Your task to perform on an android device: uninstall "AliExpress" Image 0: 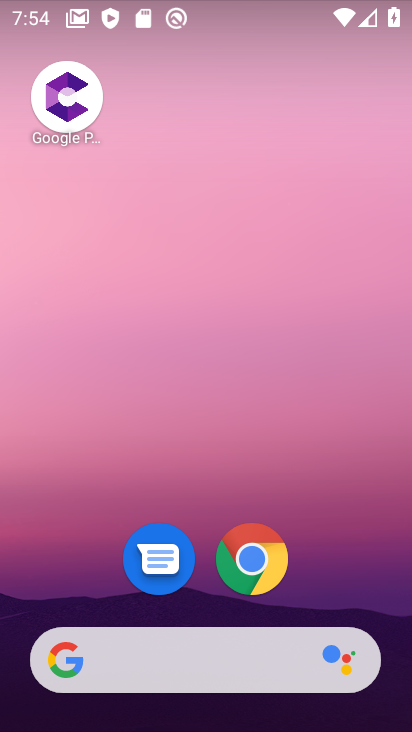
Step 0: drag from (176, 488) to (183, 89)
Your task to perform on an android device: uninstall "AliExpress" Image 1: 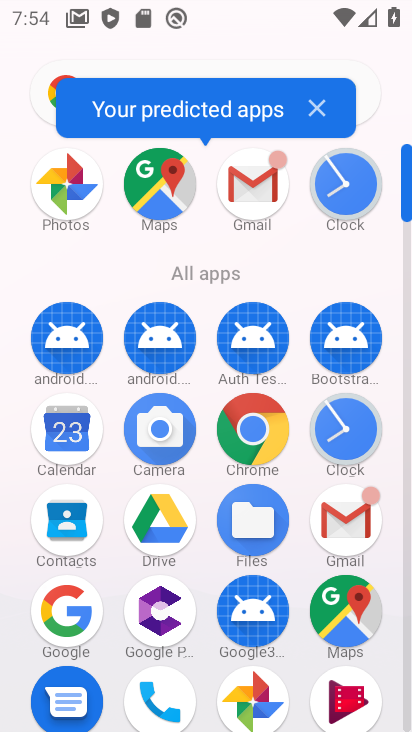
Step 1: drag from (201, 536) to (192, 191)
Your task to perform on an android device: uninstall "AliExpress" Image 2: 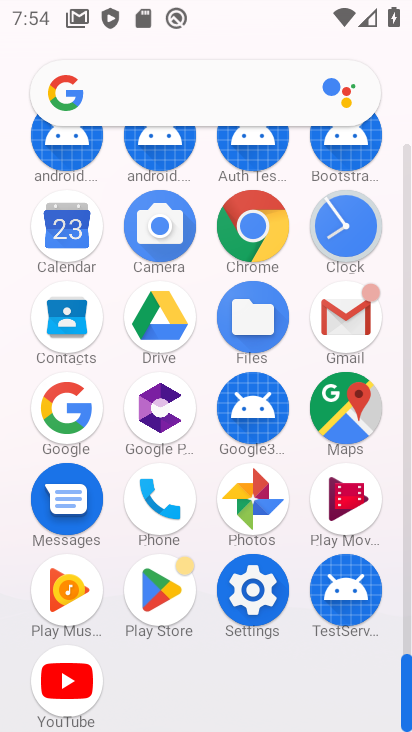
Step 2: click (165, 611)
Your task to perform on an android device: uninstall "AliExpress" Image 3: 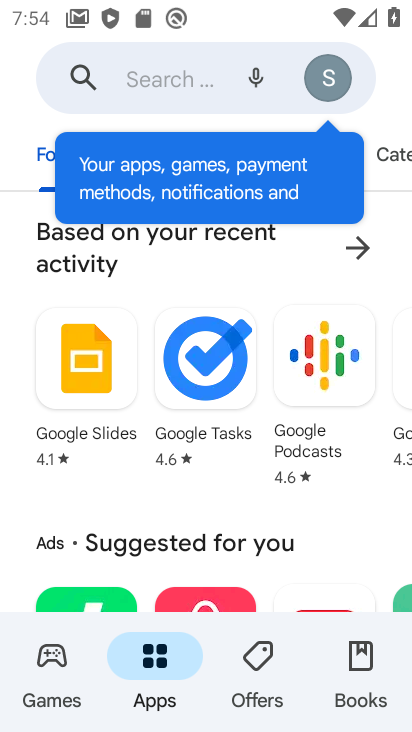
Step 3: click (227, 77)
Your task to perform on an android device: uninstall "AliExpress" Image 4: 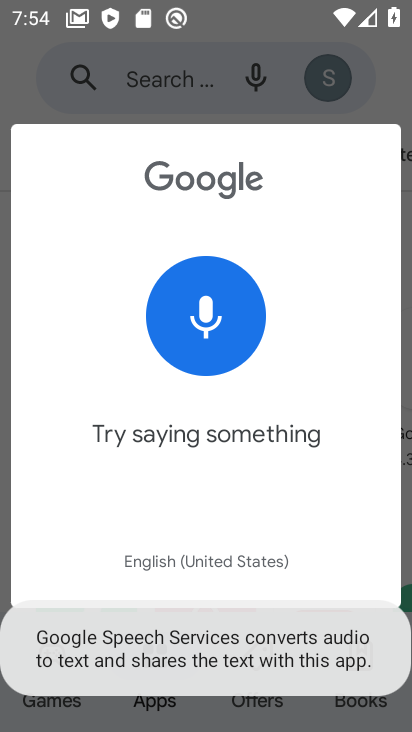
Step 4: drag from (210, 76) to (139, 76)
Your task to perform on an android device: uninstall "AliExpress" Image 5: 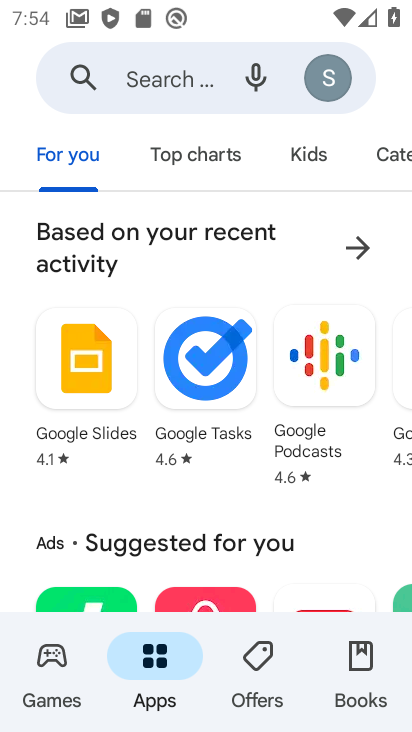
Step 5: drag from (210, 76) to (139, 76)
Your task to perform on an android device: uninstall "AliExpress" Image 6: 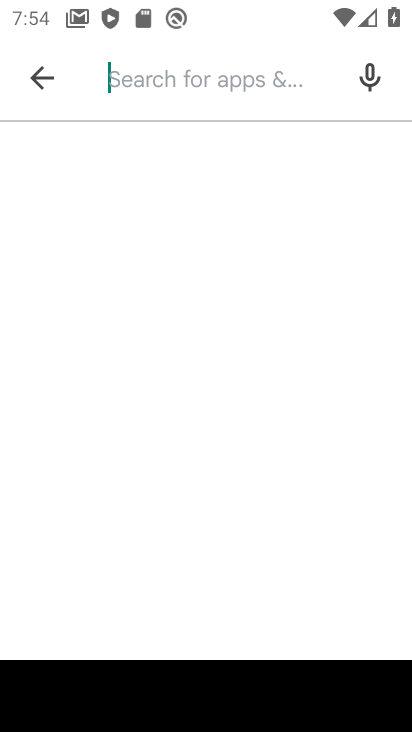
Step 6: type "AliExpress"
Your task to perform on an android device: uninstall "AliExpress" Image 7: 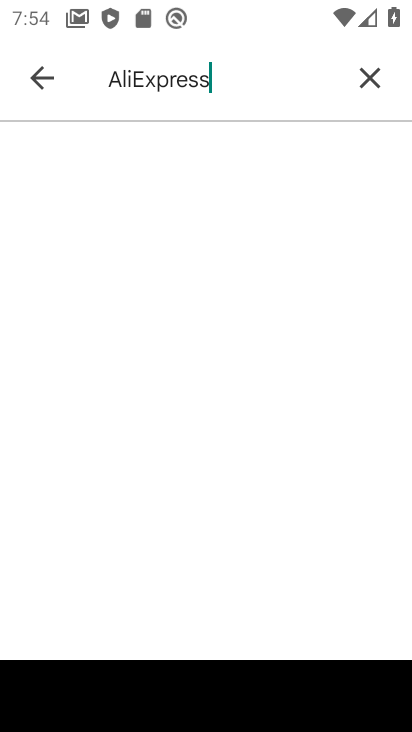
Step 7: type ""
Your task to perform on an android device: uninstall "AliExpress" Image 8: 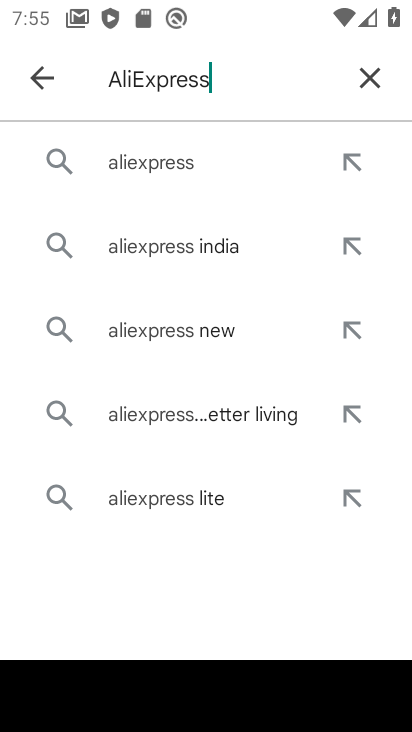
Step 8: click (188, 166)
Your task to perform on an android device: uninstall "AliExpress" Image 9: 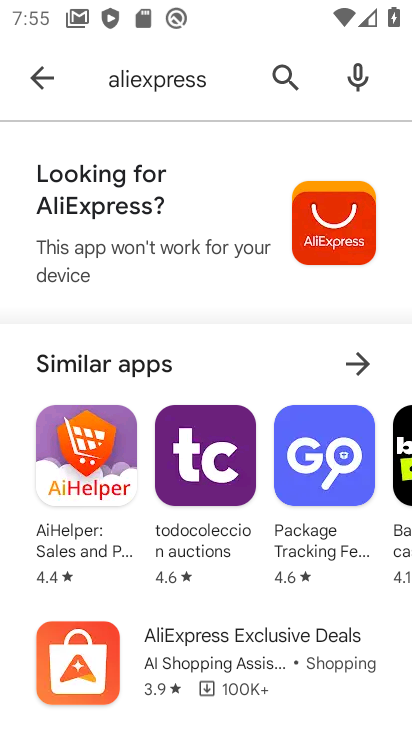
Step 9: click (170, 662)
Your task to perform on an android device: uninstall "AliExpress" Image 10: 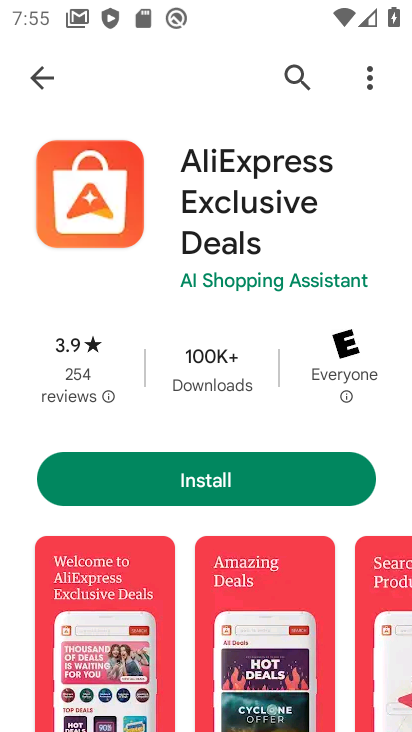
Step 10: task complete